Your task to perform on an android device: Open Yahoo.com Image 0: 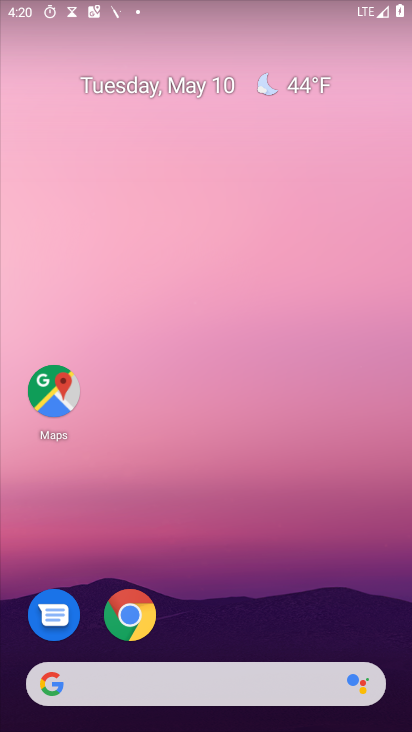
Step 0: drag from (322, 653) to (404, 430)
Your task to perform on an android device: Open Yahoo.com Image 1: 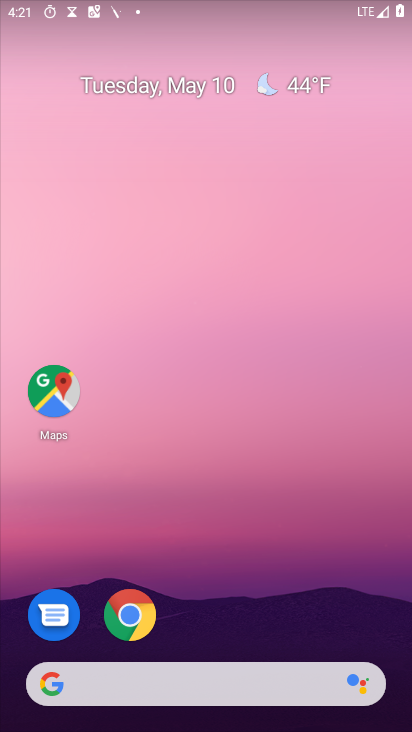
Step 1: drag from (299, 526) to (245, 23)
Your task to perform on an android device: Open Yahoo.com Image 2: 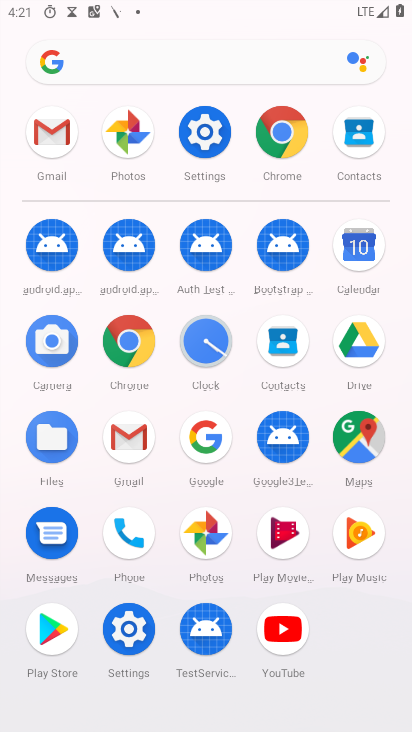
Step 2: click (138, 332)
Your task to perform on an android device: Open Yahoo.com Image 3: 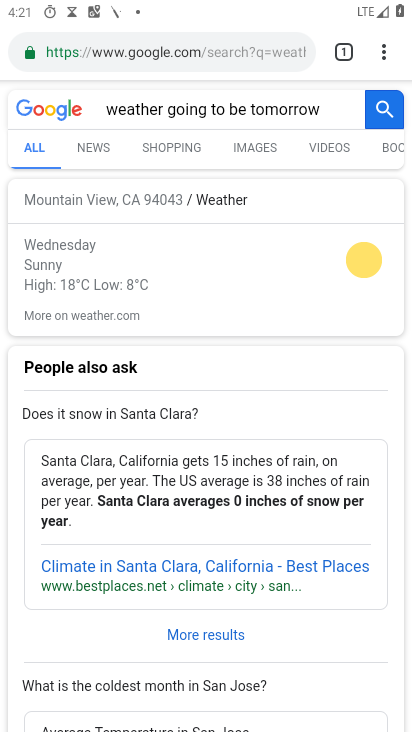
Step 3: click (251, 49)
Your task to perform on an android device: Open Yahoo.com Image 4: 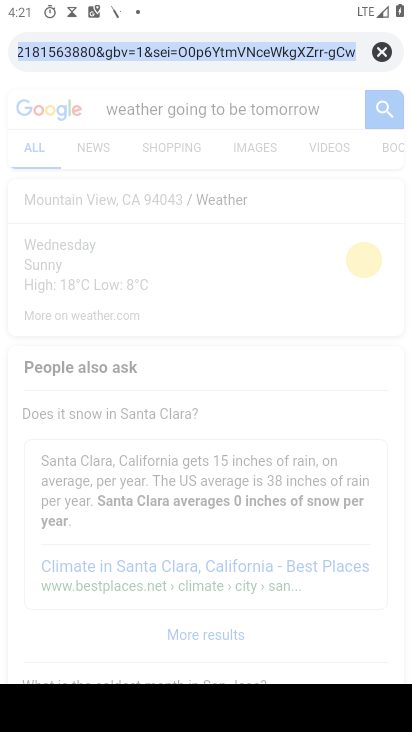
Step 4: click (385, 53)
Your task to perform on an android device: Open Yahoo.com Image 5: 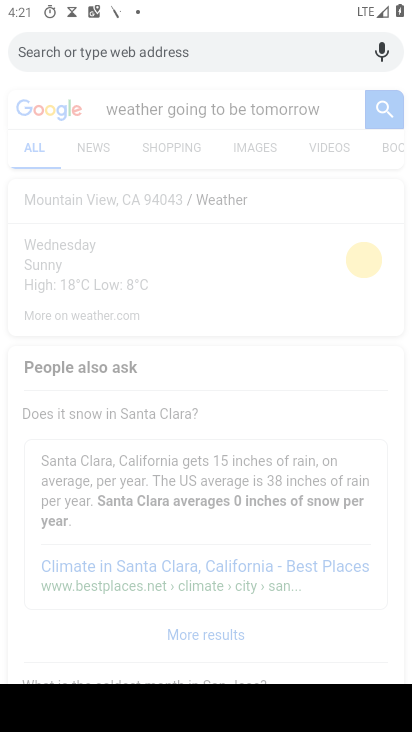
Step 5: type "yahoo.com"
Your task to perform on an android device: Open Yahoo.com Image 6: 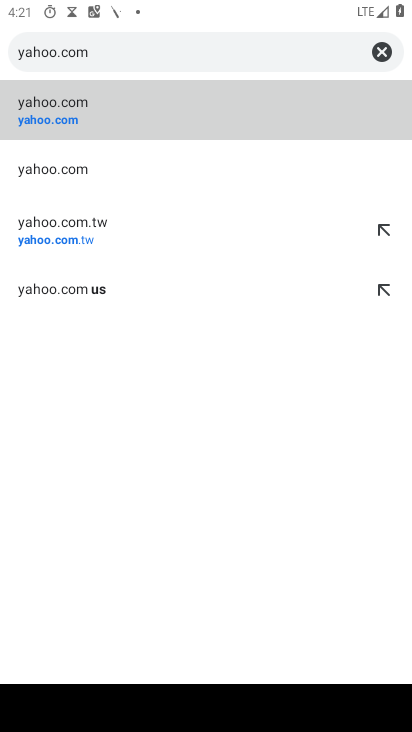
Step 6: click (93, 115)
Your task to perform on an android device: Open Yahoo.com Image 7: 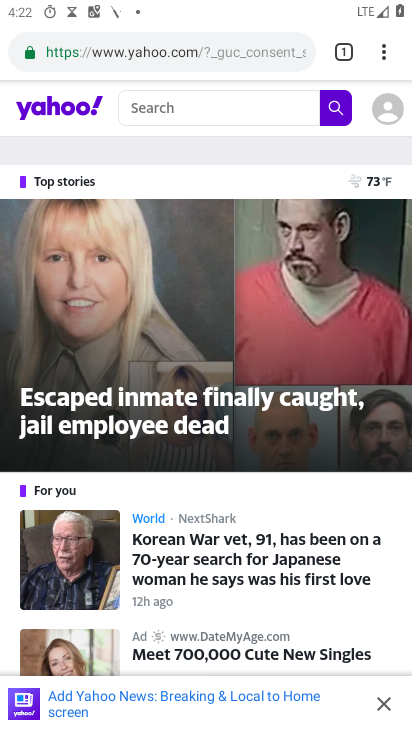
Step 7: task complete